Your task to perform on an android device: Go to Google maps Image 0: 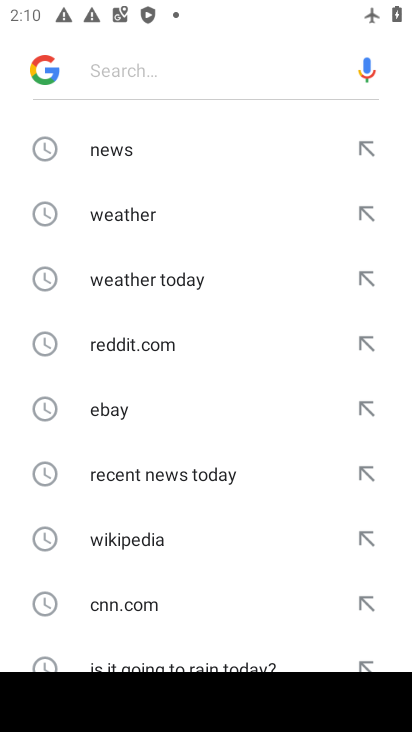
Step 0: press back button
Your task to perform on an android device: Go to Google maps Image 1: 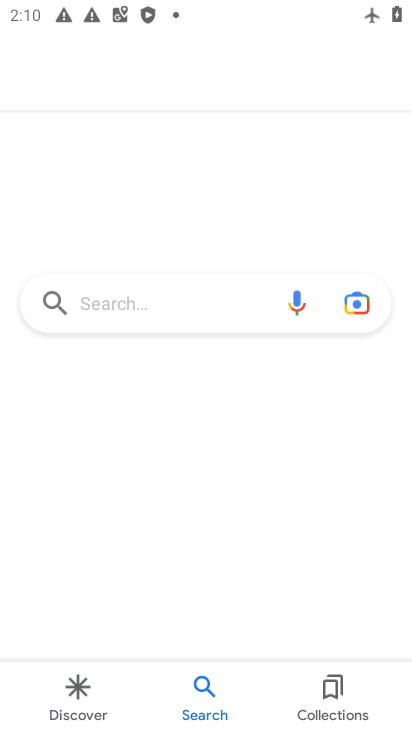
Step 1: press back button
Your task to perform on an android device: Go to Google maps Image 2: 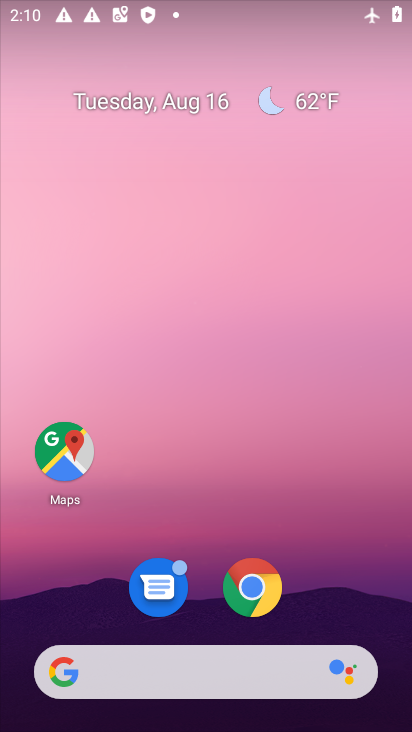
Step 2: click (54, 456)
Your task to perform on an android device: Go to Google maps Image 3: 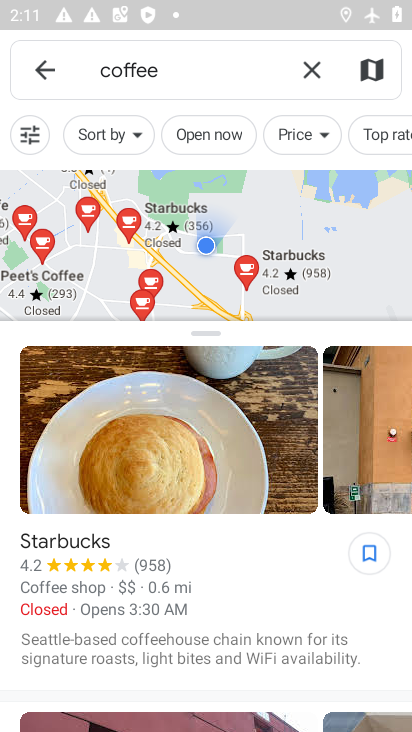
Step 3: task complete